Your task to perform on an android device: Show me productivity apps on the Play Store Image 0: 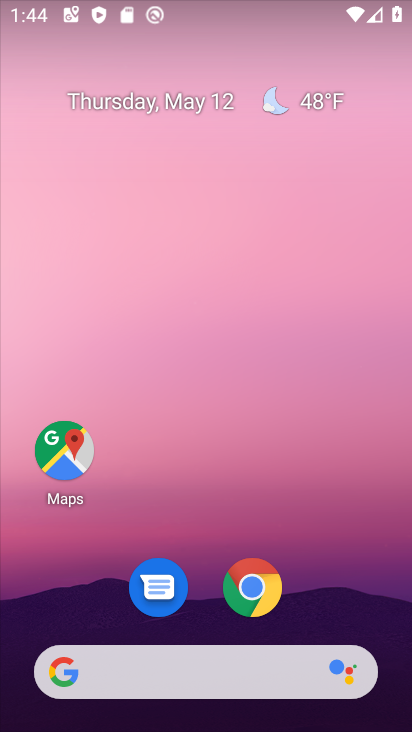
Step 0: drag from (228, 648) to (242, 268)
Your task to perform on an android device: Show me productivity apps on the Play Store Image 1: 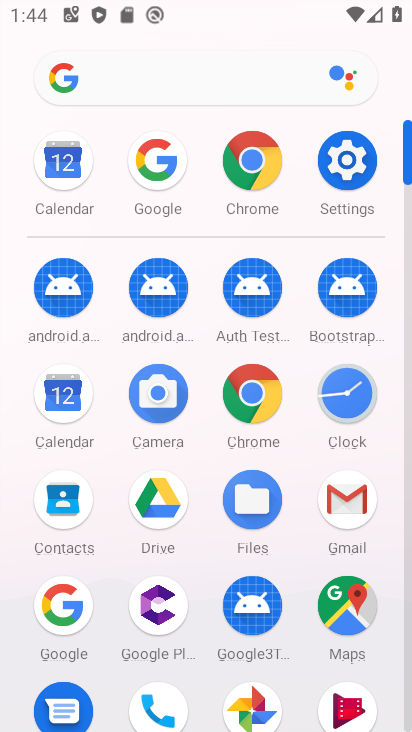
Step 1: drag from (199, 561) to (223, 289)
Your task to perform on an android device: Show me productivity apps on the Play Store Image 2: 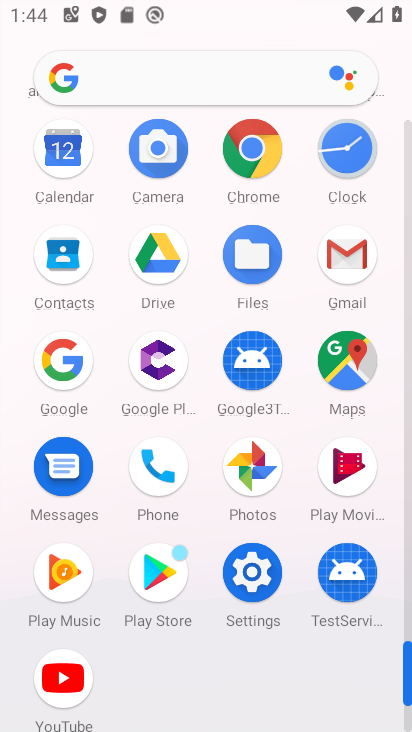
Step 2: click (155, 584)
Your task to perform on an android device: Show me productivity apps on the Play Store Image 3: 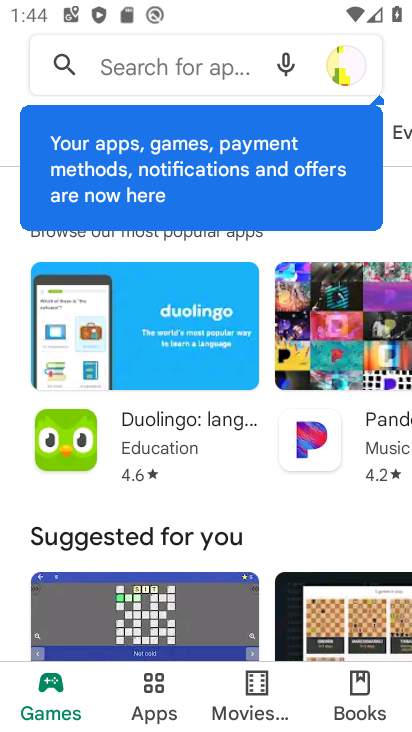
Step 3: click (159, 85)
Your task to perform on an android device: Show me productivity apps on the Play Store Image 4: 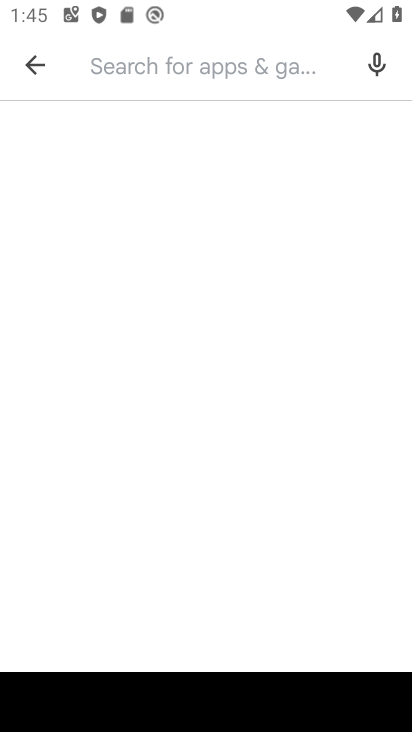
Step 4: type "productivity apps"
Your task to perform on an android device: Show me productivity apps on the Play Store Image 5: 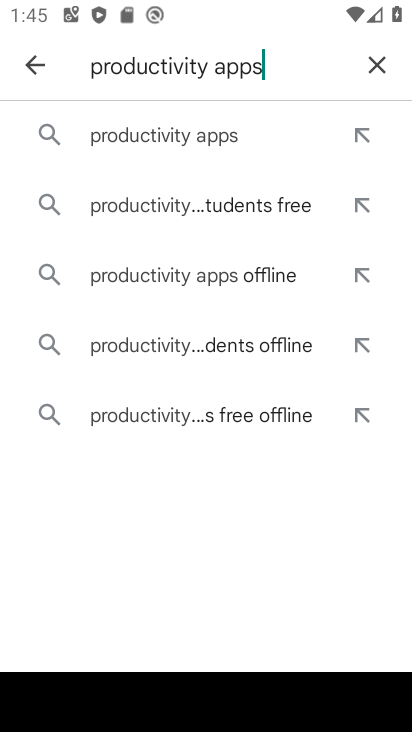
Step 5: click (237, 146)
Your task to perform on an android device: Show me productivity apps on the Play Store Image 6: 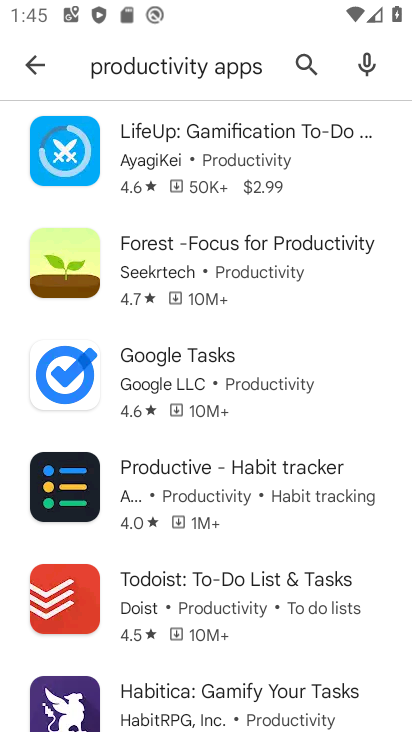
Step 6: task complete